Your task to perform on an android device: turn off improve location accuracy Image 0: 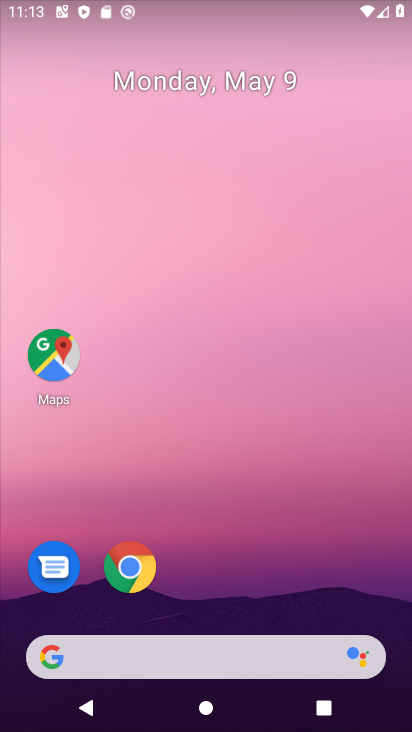
Step 0: drag from (242, 586) to (262, 227)
Your task to perform on an android device: turn off improve location accuracy Image 1: 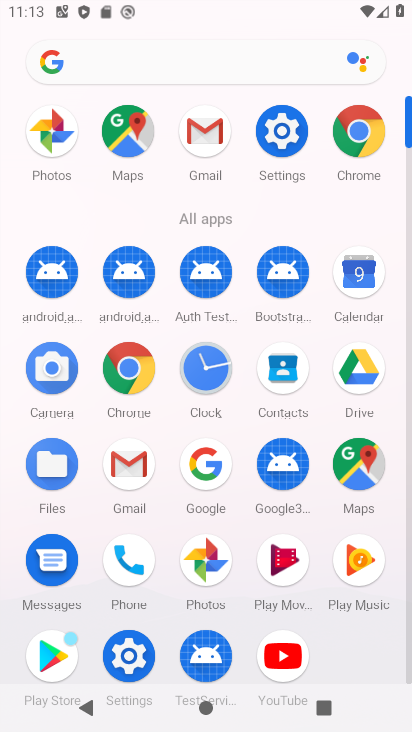
Step 1: click (135, 673)
Your task to perform on an android device: turn off improve location accuracy Image 2: 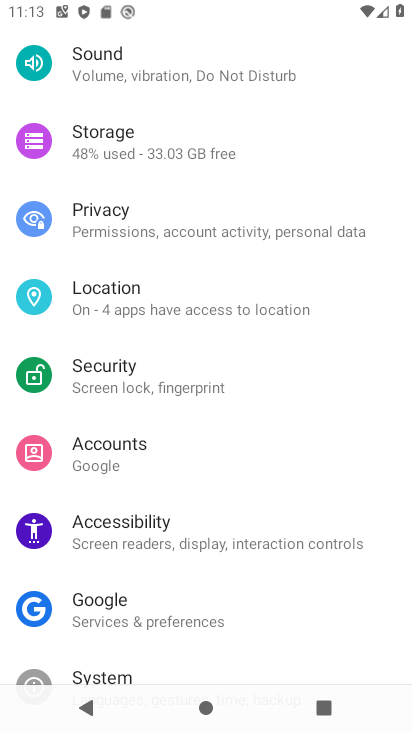
Step 2: click (200, 300)
Your task to perform on an android device: turn off improve location accuracy Image 3: 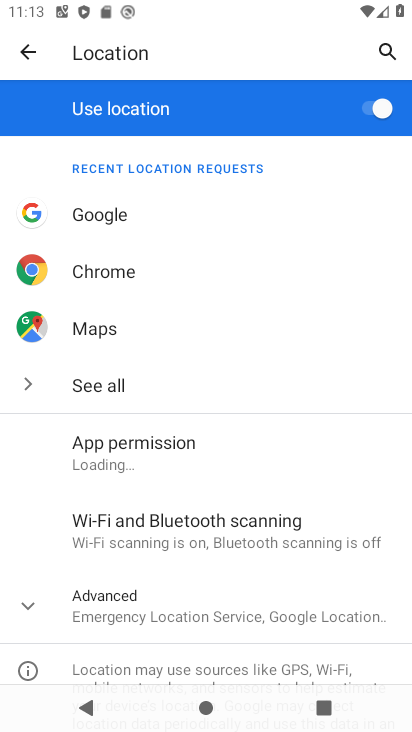
Step 3: drag from (165, 612) to (180, 381)
Your task to perform on an android device: turn off improve location accuracy Image 4: 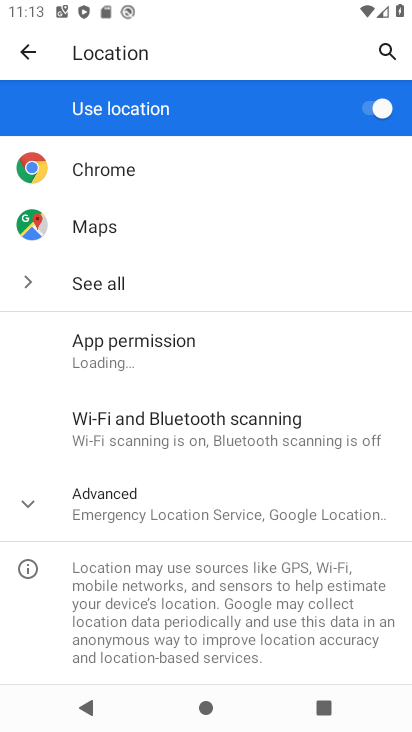
Step 4: click (124, 515)
Your task to perform on an android device: turn off improve location accuracy Image 5: 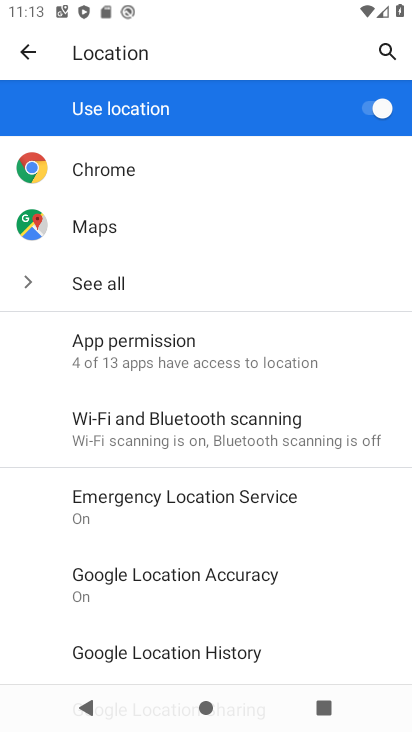
Step 5: drag from (146, 599) to (167, 460)
Your task to perform on an android device: turn off improve location accuracy Image 6: 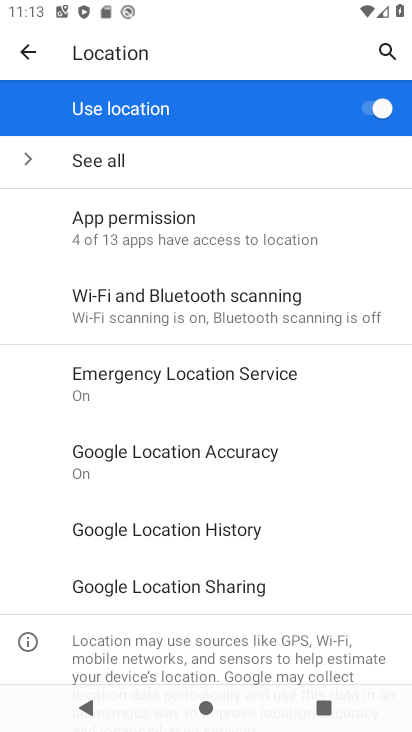
Step 6: click (167, 460)
Your task to perform on an android device: turn off improve location accuracy Image 7: 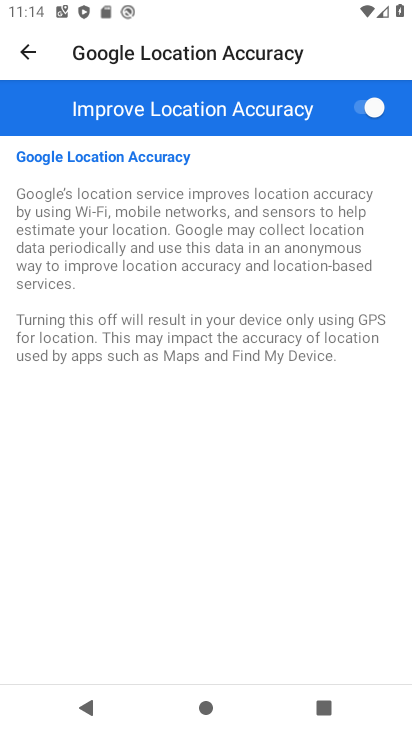
Step 7: click (369, 101)
Your task to perform on an android device: turn off improve location accuracy Image 8: 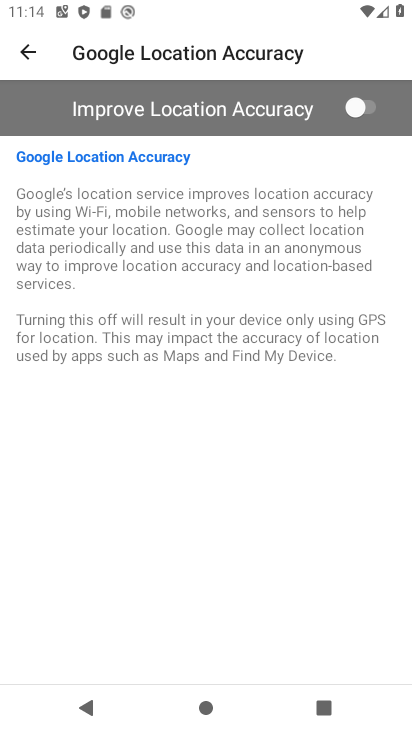
Step 8: task complete